Your task to perform on an android device: set the stopwatch Image 0: 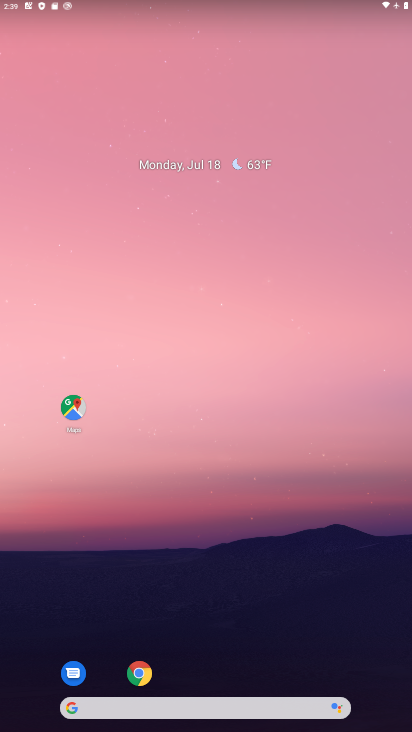
Step 0: drag from (225, 658) to (208, 273)
Your task to perform on an android device: set the stopwatch Image 1: 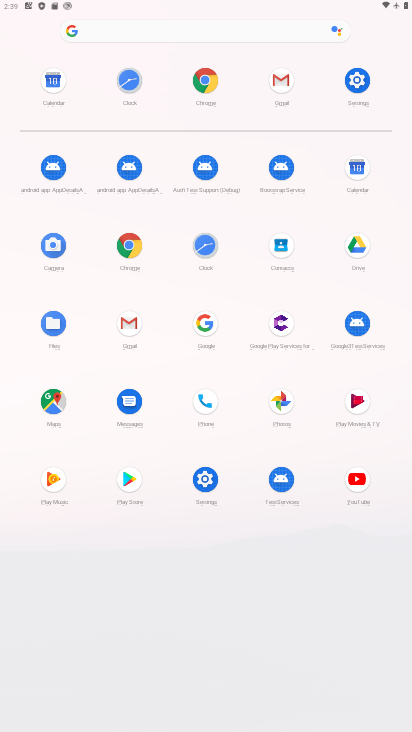
Step 1: click (203, 249)
Your task to perform on an android device: set the stopwatch Image 2: 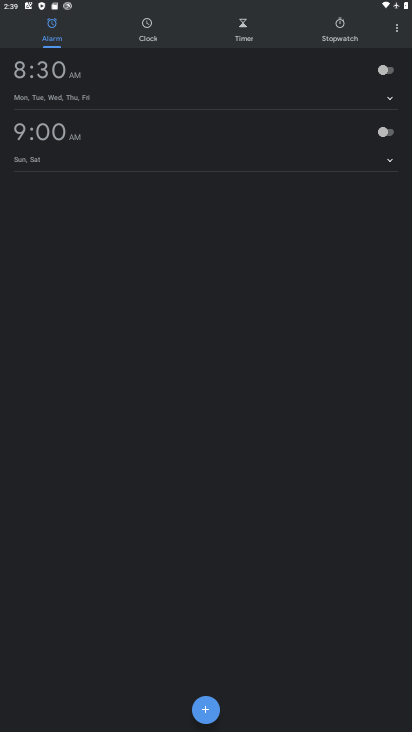
Step 2: click (333, 33)
Your task to perform on an android device: set the stopwatch Image 3: 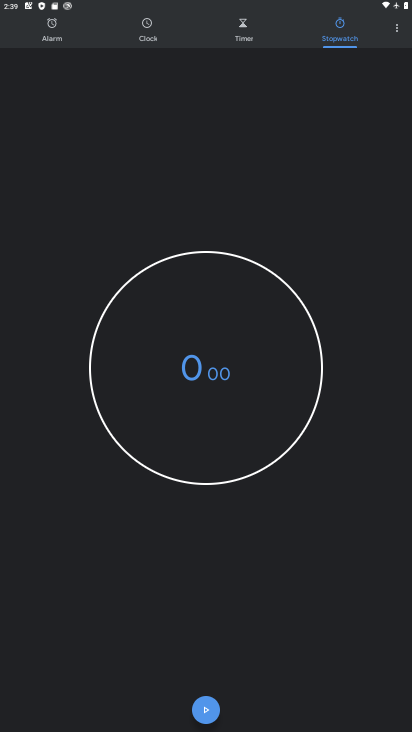
Step 3: task complete